Your task to perform on an android device: turn off improve location accuracy Image 0: 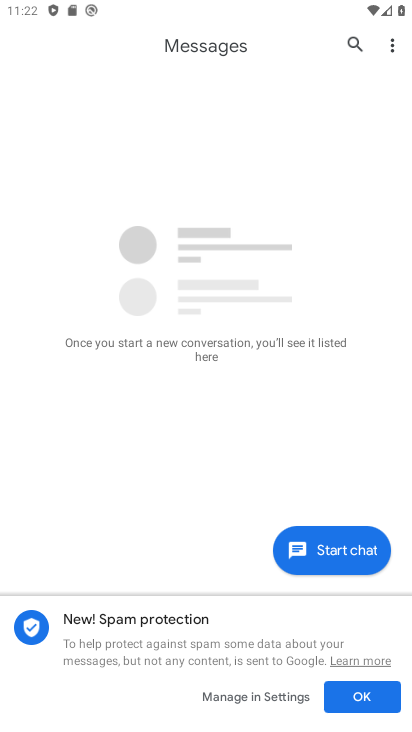
Step 0: press home button
Your task to perform on an android device: turn off improve location accuracy Image 1: 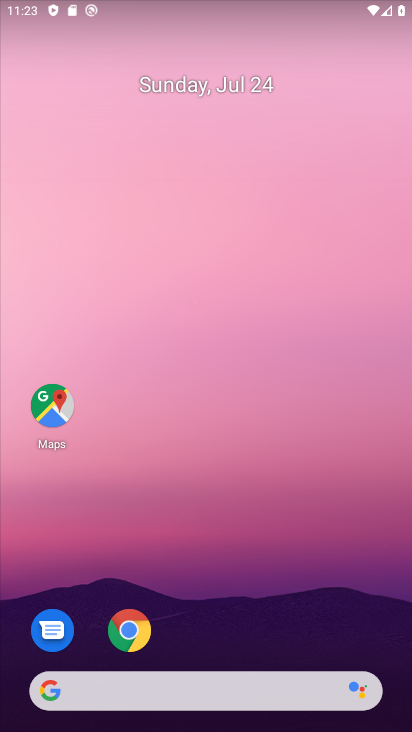
Step 1: drag from (188, 634) to (249, 39)
Your task to perform on an android device: turn off improve location accuracy Image 2: 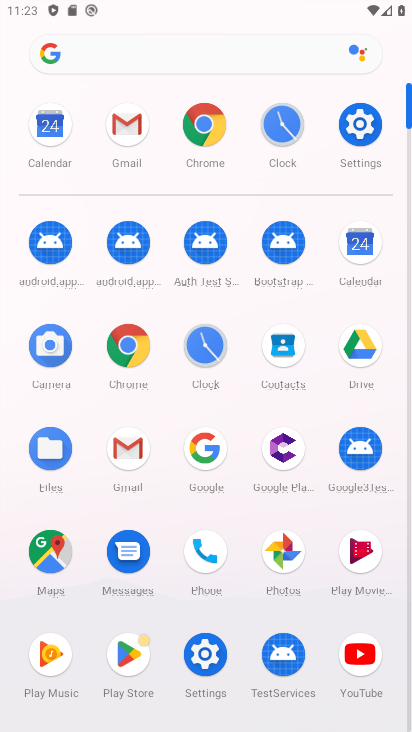
Step 2: click (363, 119)
Your task to perform on an android device: turn off improve location accuracy Image 3: 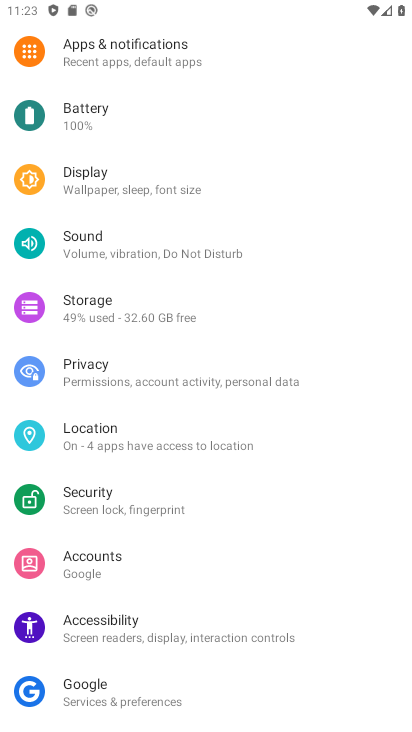
Step 3: click (92, 445)
Your task to perform on an android device: turn off improve location accuracy Image 4: 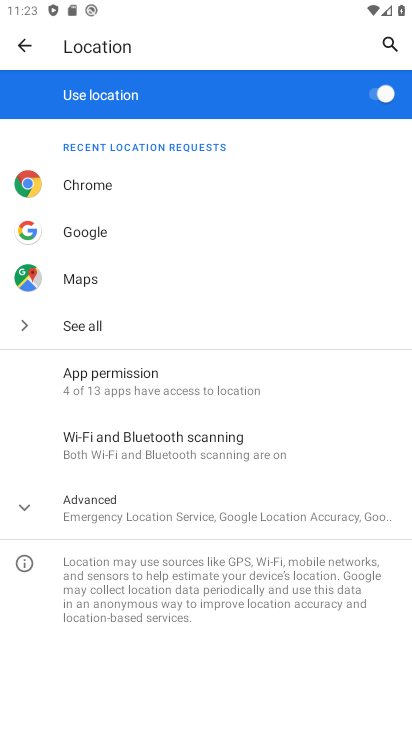
Step 4: click (122, 512)
Your task to perform on an android device: turn off improve location accuracy Image 5: 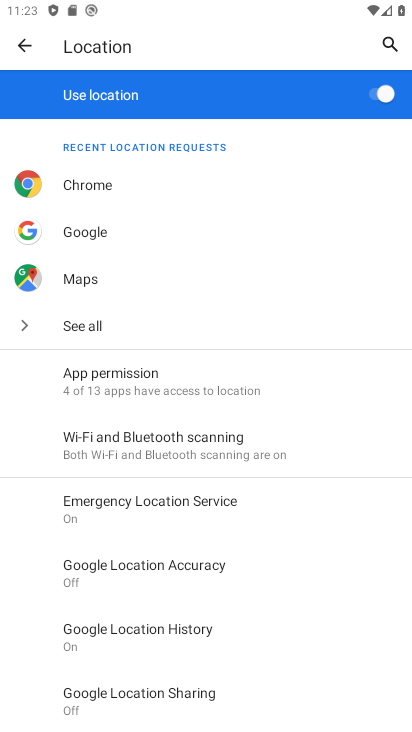
Step 5: click (138, 578)
Your task to perform on an android device: turn off improve location accuracy Image 6: 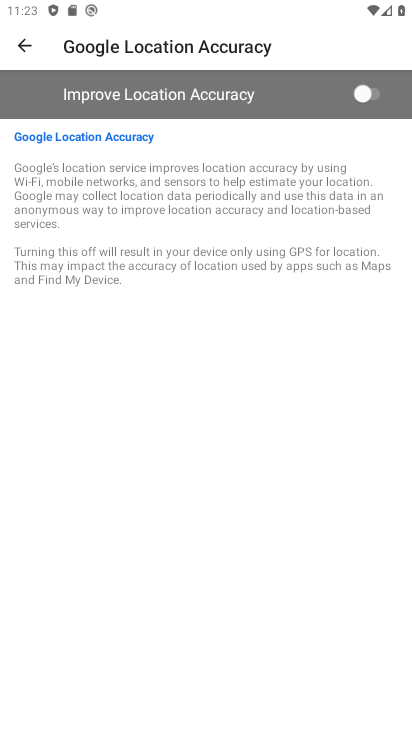
Step 6: task complete